Your task to perform on an android device: turn notification dots on Image 0: 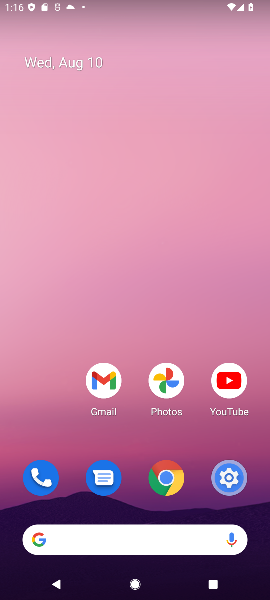
Step 0: drag from (103, 244) to (118, 17)
Your task to perform on an android device: turn notification dots on Image 1: 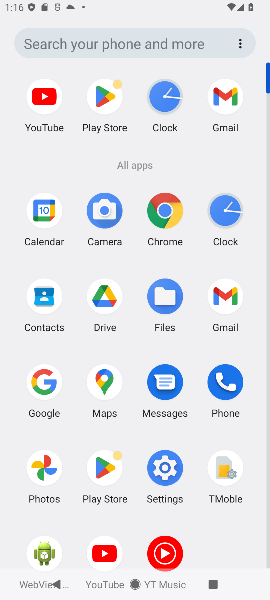
Step 1: click (160, 468)
Your task to perform on an android device: turn notification dots on Image 2: 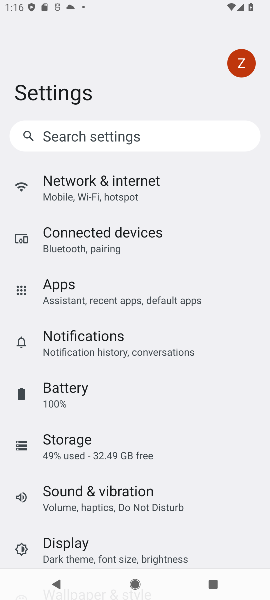
Step 2: task complete